Your task to perform on an android device: Open the calendar app, open the side menu, and click the "Day" option Image 0: 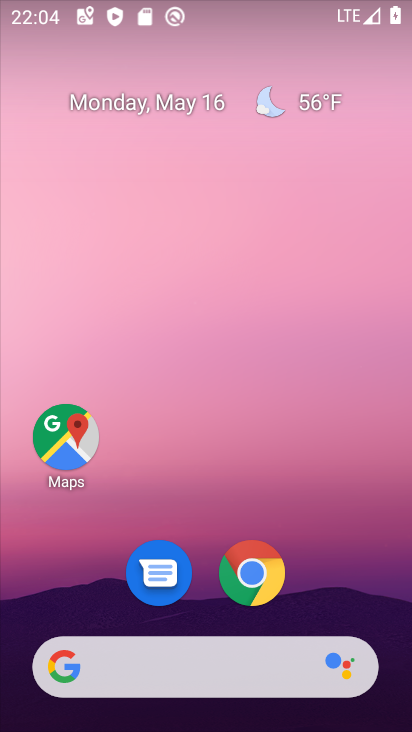
Step 0: drag from (213, 725) to (212, 15)
Your task to perform on an android device: Open the calendar app, open the side menu, and click the "Day" option Image 1: 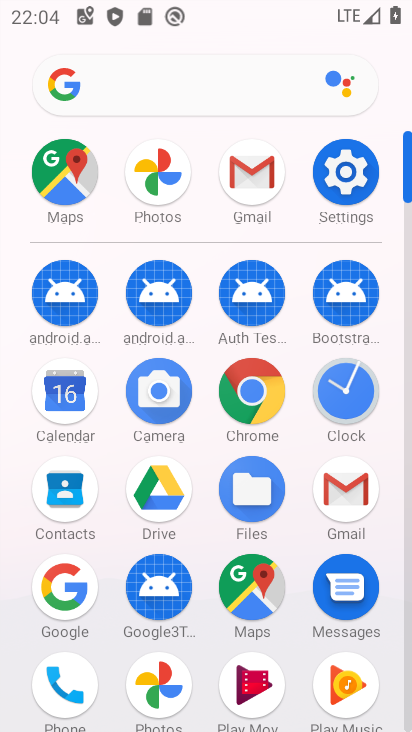
Step 1: click (61, 389)
Your task to perform on an android device: Open the calendar app, open the side menu, and click the "Day" option Image 2: 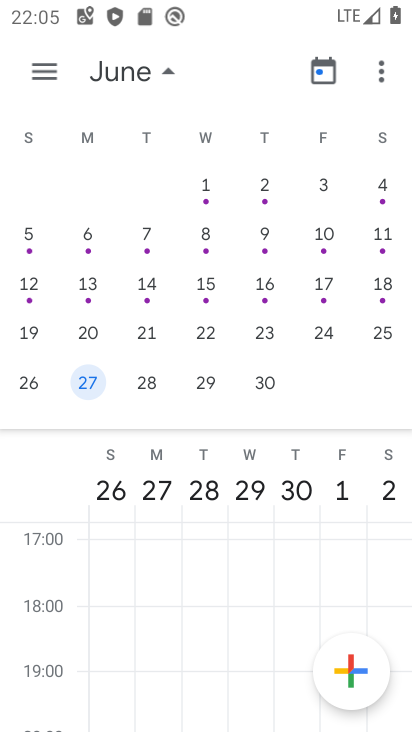
Step 2: click (48, 63)
Your task to perform on an android device: Open the calendar app, open the side menu, and click the "Day" option Image 3: 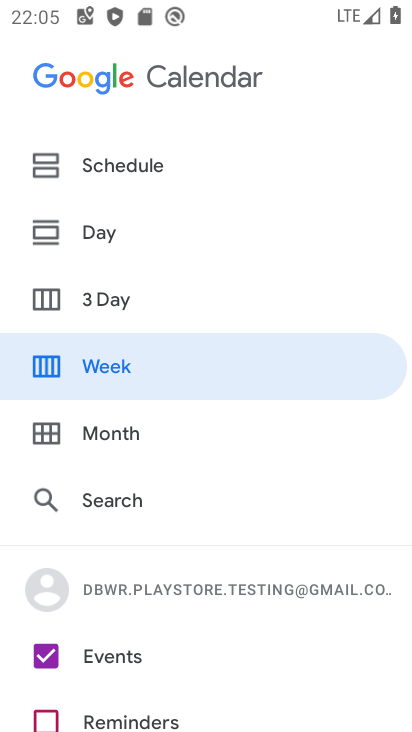
Step 3: task complete